Your task to perform on an android device: clear all cookies in the chrome app Image 0: 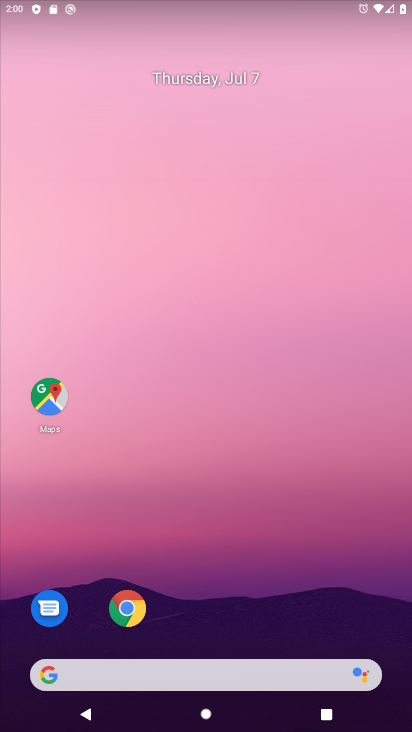
Step 0: click (131, 605)
Your task to perform on an android device: clear all cookies in the chrome app Image 1: 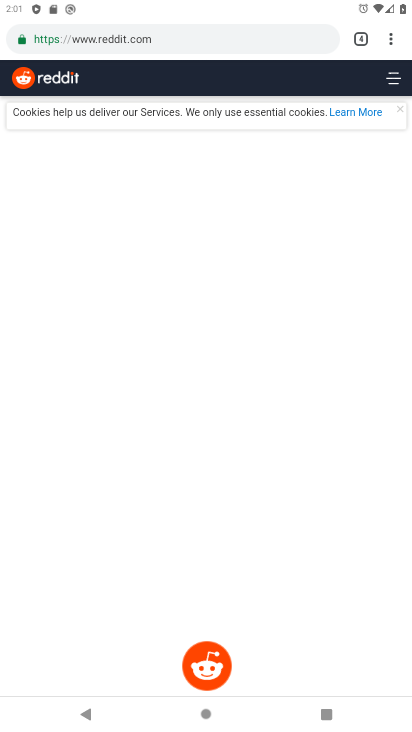
Step 1: click (391, 43)
Your task to perform on an android device: clear all cookies in the chrome app Image 2: 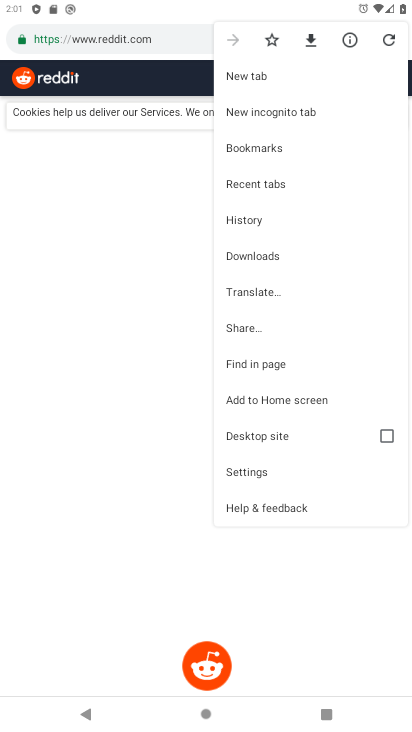
Step 2: click (244, 217)
Your task to perform on an android device: clear all cookies in the chrome app Image 3: 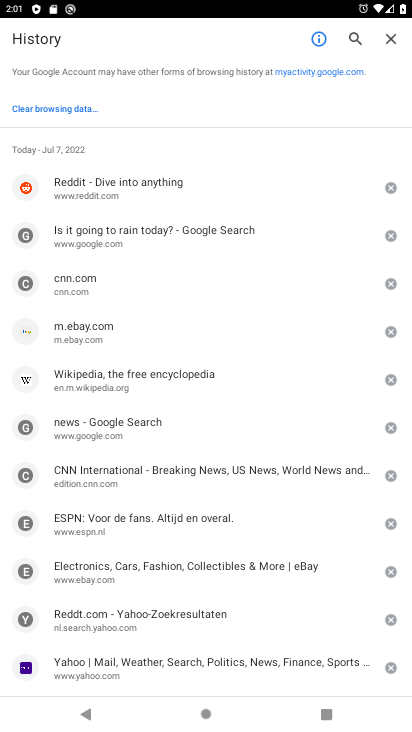
Step 3: click (67, 107)
Your task to perform on an android device: clear all cookies in the chrome app Image 4: 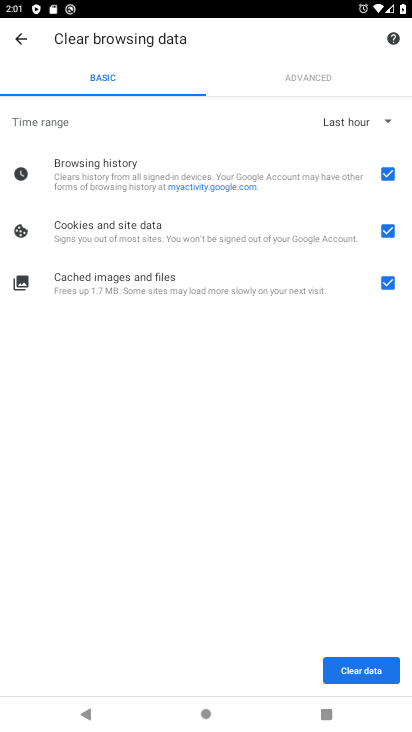
Step 4: click (391, 167)
Your task to perform on an android device: clear all cookies in the chrome app Image 5: 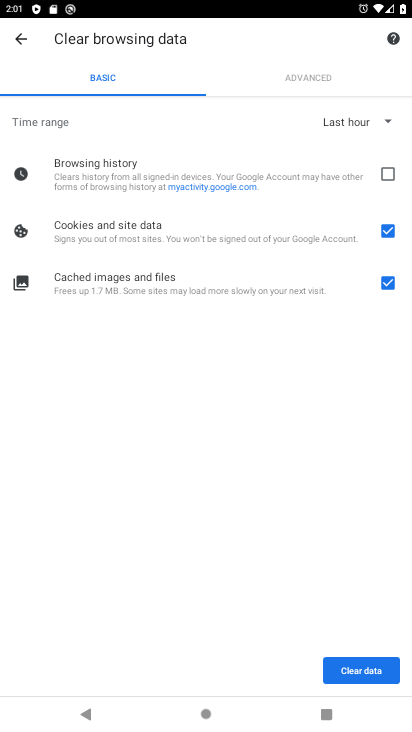
Step 5: click (387, 279)
Your task to perform on an android device: clear all cookies in the chrome app Image 6: 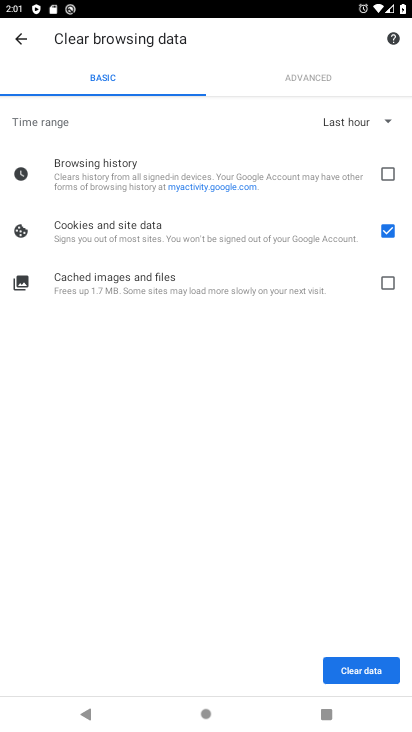
Step 6: click (349, 677)
Your task to perform on an android device: clear all cookies in the chrome app Image 7: 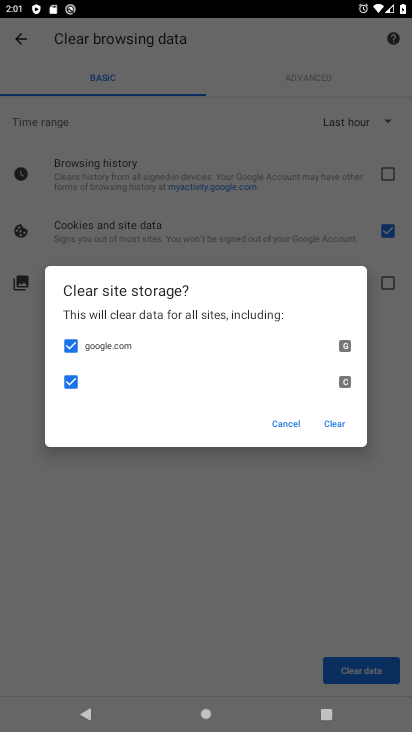
Step 7: click (336, 420)
Your task to perform on an android device: clear all cookies in the chrome app Image 8: 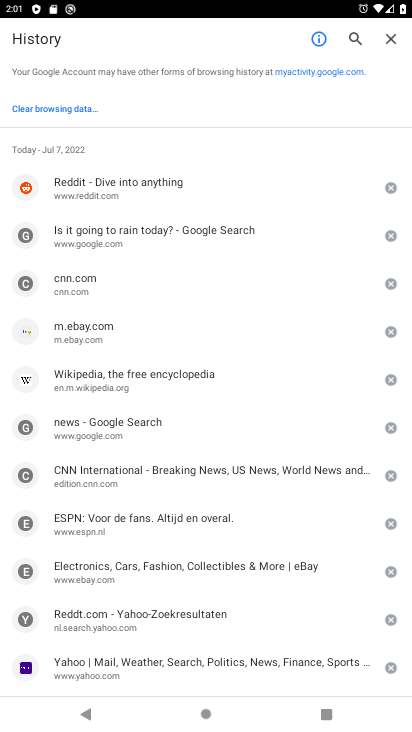
Step 8: task complete